Your task to perform on an android device: see sites visited before in the chrome app Image 0: 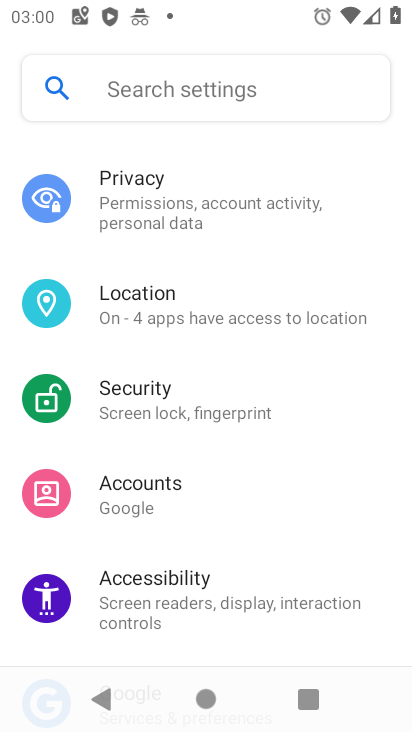
Step 0: press home button
Your task to perform on an android device: see sites visited before in the chrome app Image 1: 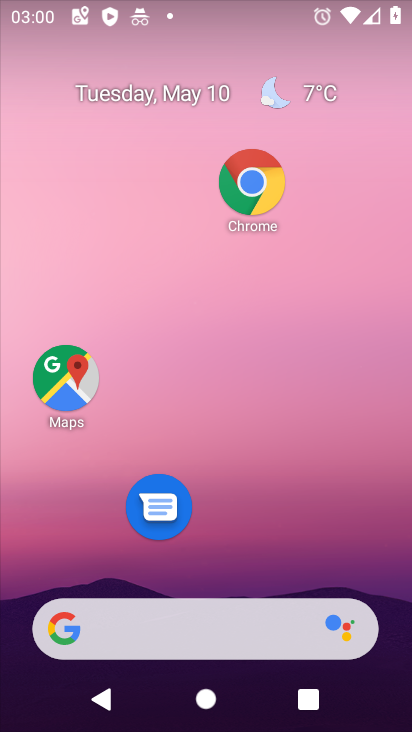
Step 1: click (307, 526)
Your task to perform on an android device: see sites visited before in the chrome app Image 2: 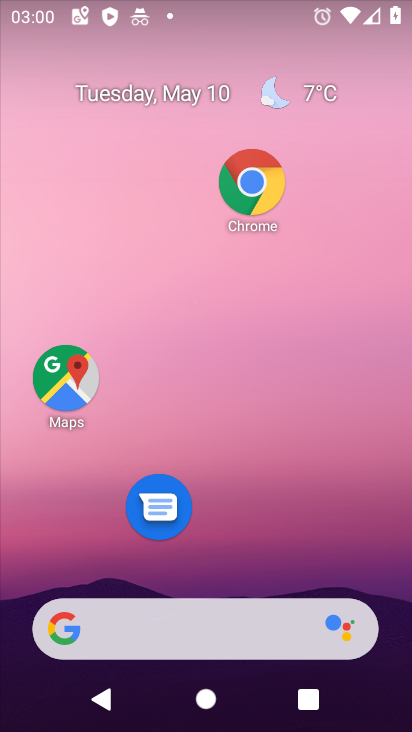
Step 2: click (262, 200)
Your task to perform on an android device: see sites visited before in the chrome app Image 3: 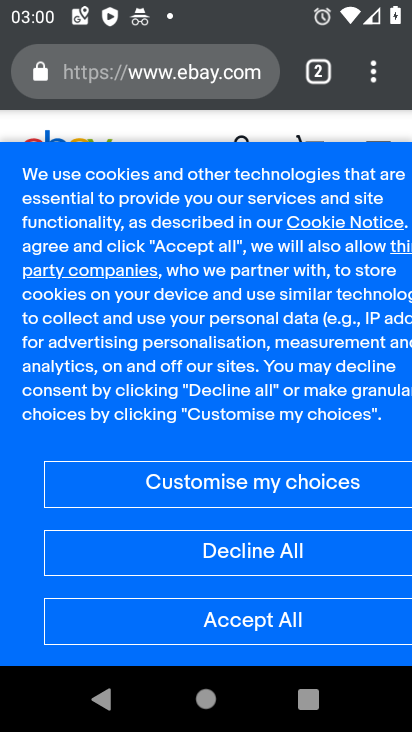
Step 3: click (364, 95)
Your task to perform on an android device: see sites visited before in the chrome app Image 4: 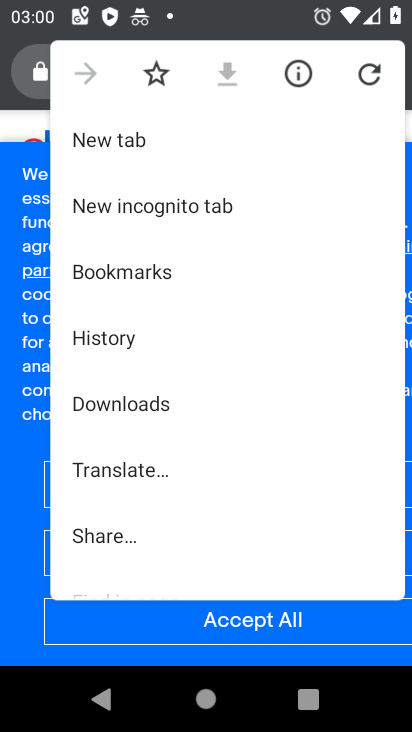
Step 4: drag from (109, 544) to (126, 268)
Your task to perform on an android device: see sites visited before in the chrome app Image 5: 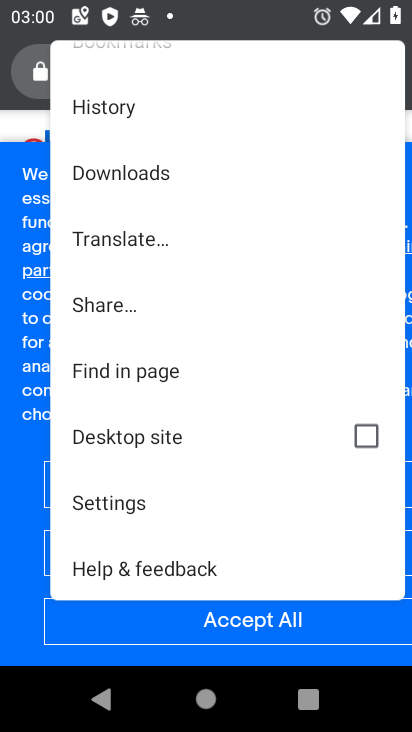
Step 5: click (141, 497)
Your task to perform on an android device: see sites visited before in the chrome app Image 6: 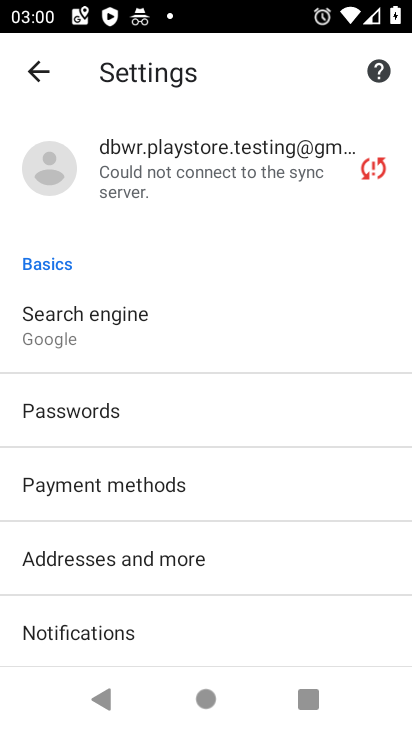
Step 6: drag from (133, 625) to (140, 322)
Your task to perform on an android device: see sites visited before in the chrome app Image 7: 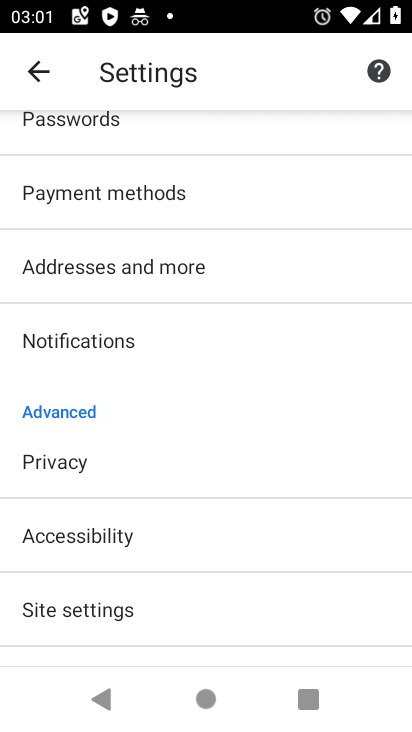
Step 7: click (162, 613)
Your task to perform on an android device: see sites visited before in the chrome app Image 8: 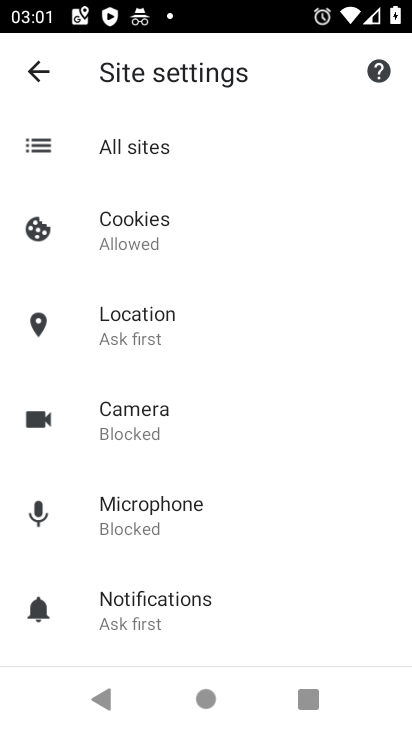
Step 8: task complete